Your task to perform on an android device: uninstall "DoorDash - Food Delivery" Image 0: 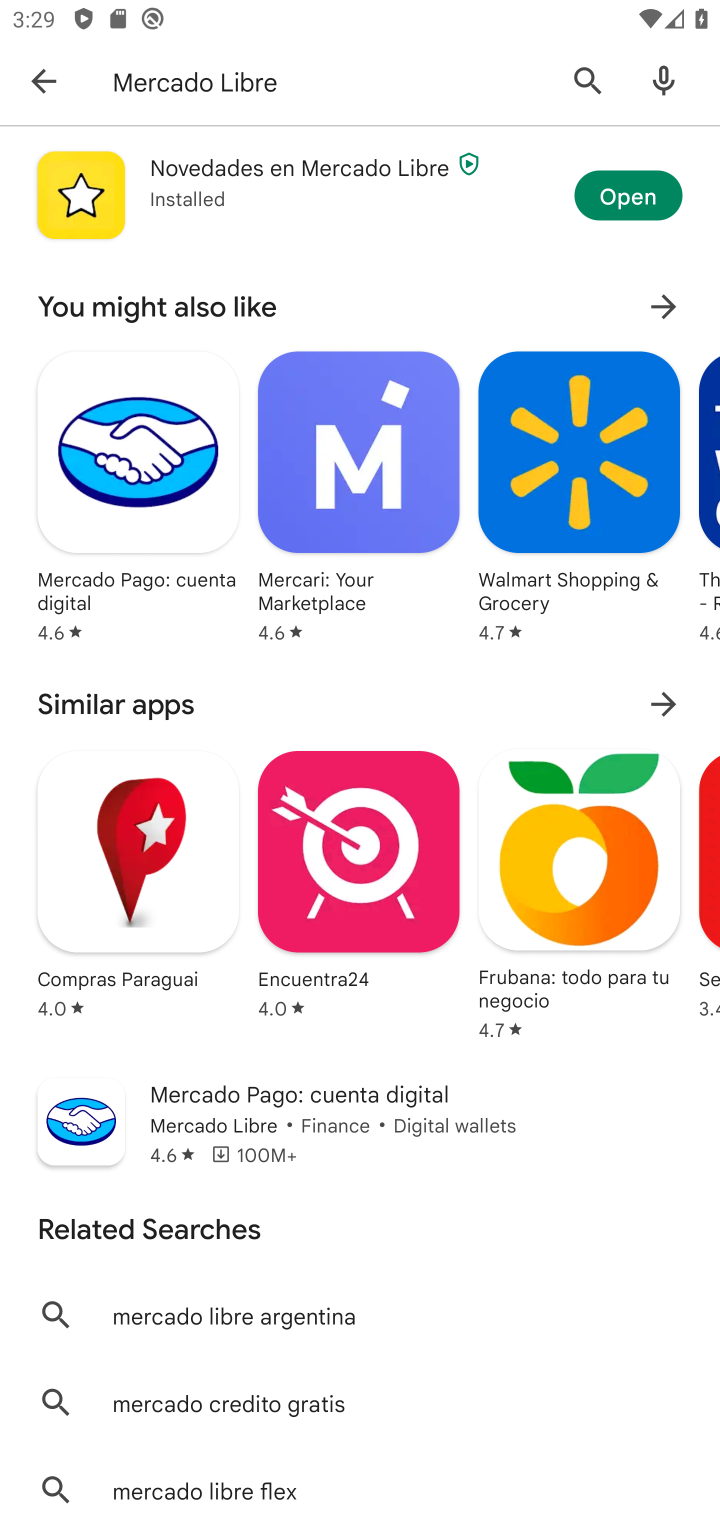
Step 0: press home button
Your task to perform on an android device: uninstall "DoorDash - Food Delivery" Image 1: 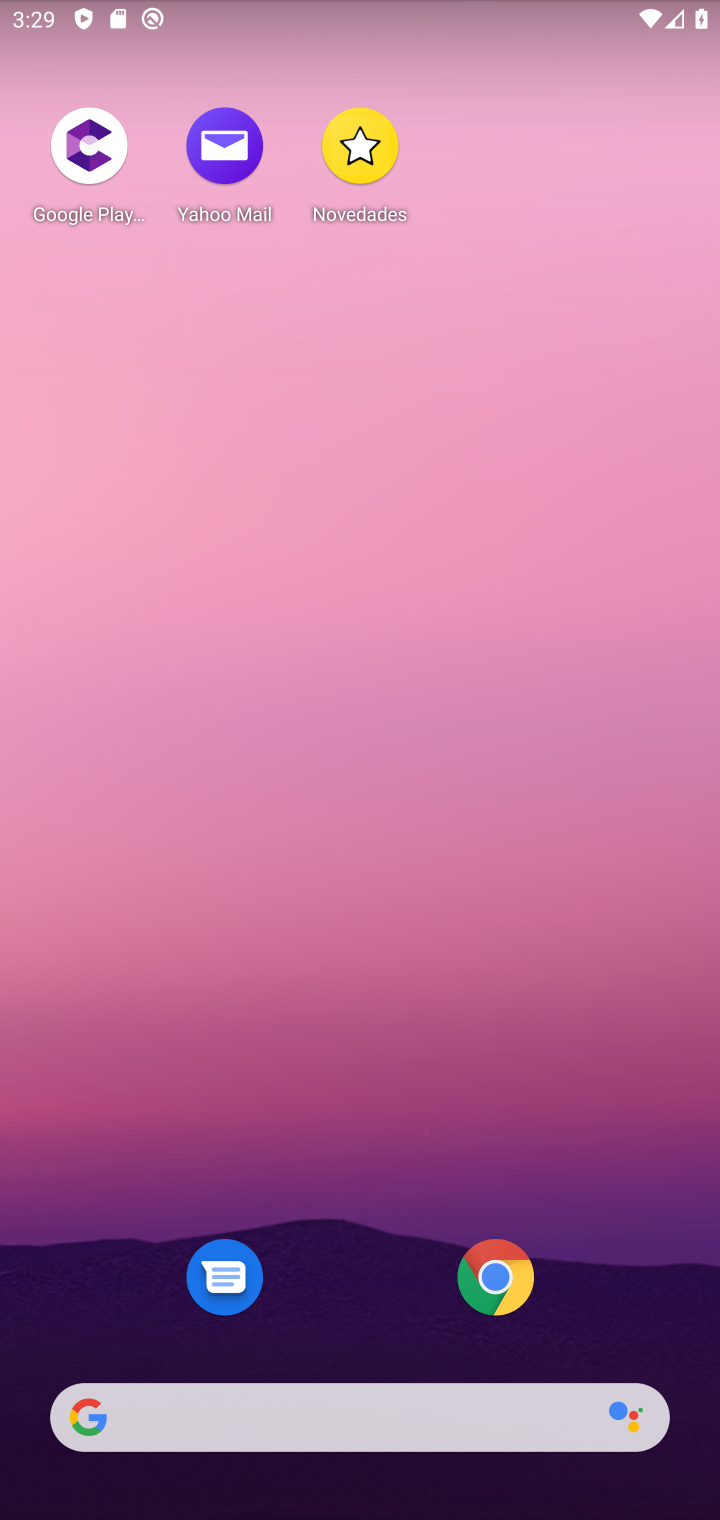
Step 1: drag from (570, 1045) to (605, 143)
Your task to perform on an android device: uninstall "DoorDash - Food Delivery" Image 2: 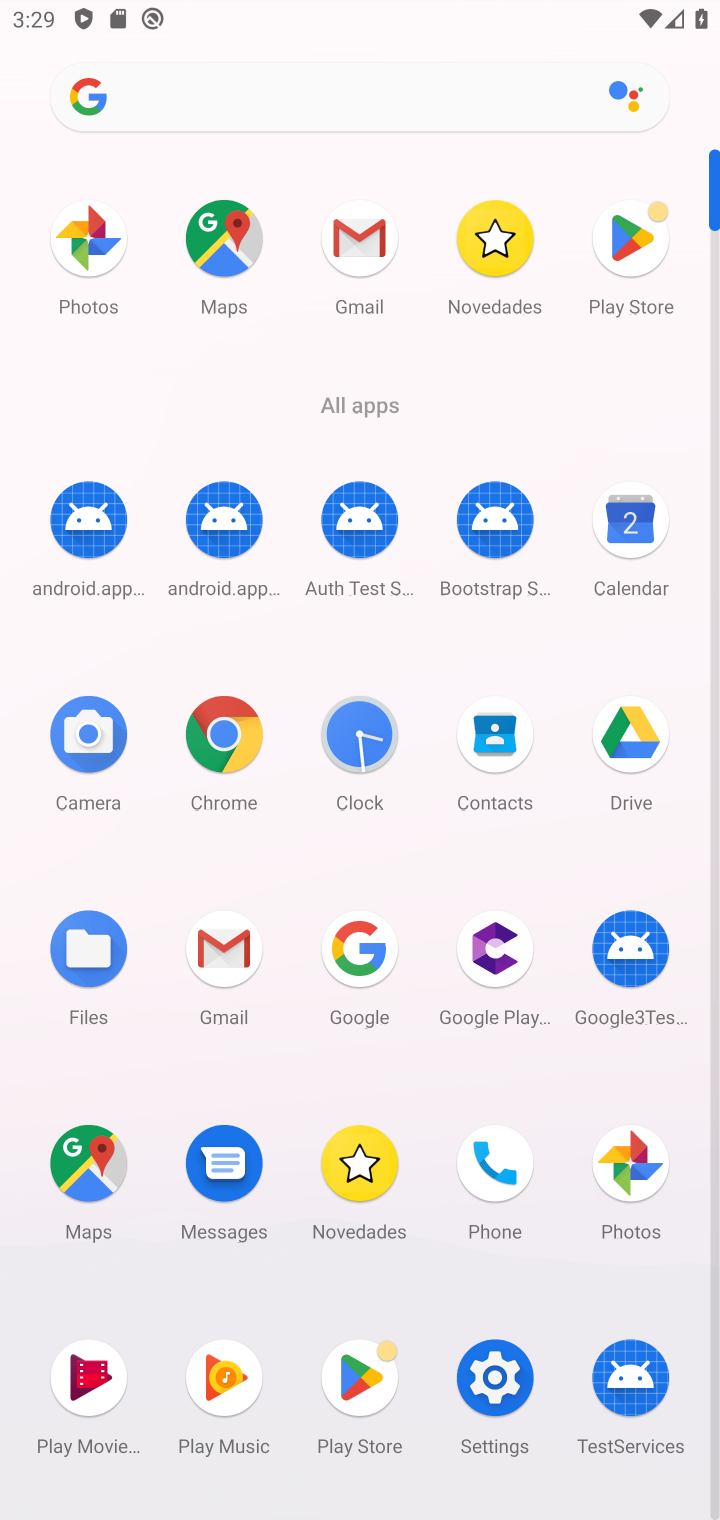
Step 2: drag from (398, 1086) to (449, 370)
Your task to perform on an android device: uninstall "DoorDash - Food Delivery" Image 3: 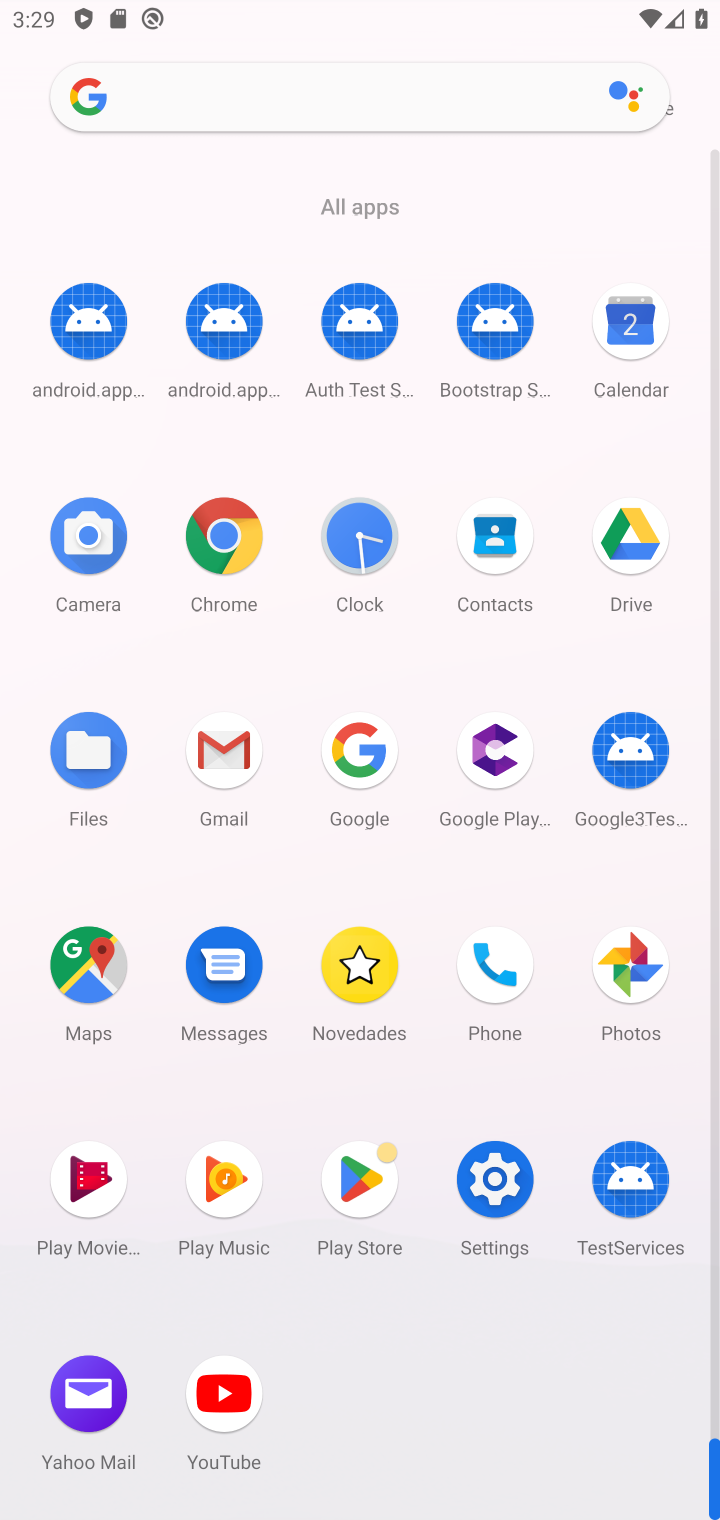
Step 3: click (463, 1394)
Your task to perform on an android device: uninstall "DoorDash - Food Delivery" Image 4: 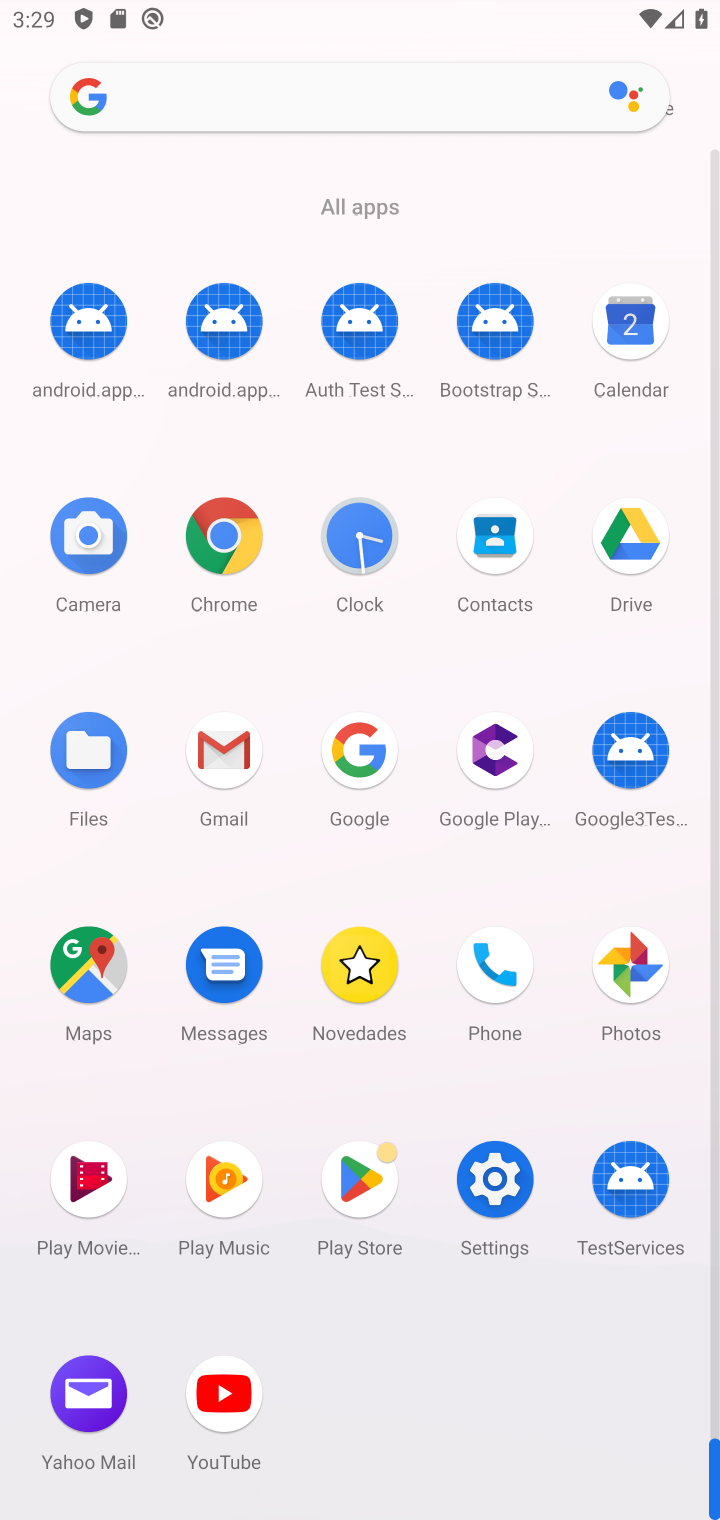
Step 4: click (344, 1173)
Your task to perform on an android device: uninstall "DoorDash - Food Delivery" Image 5: 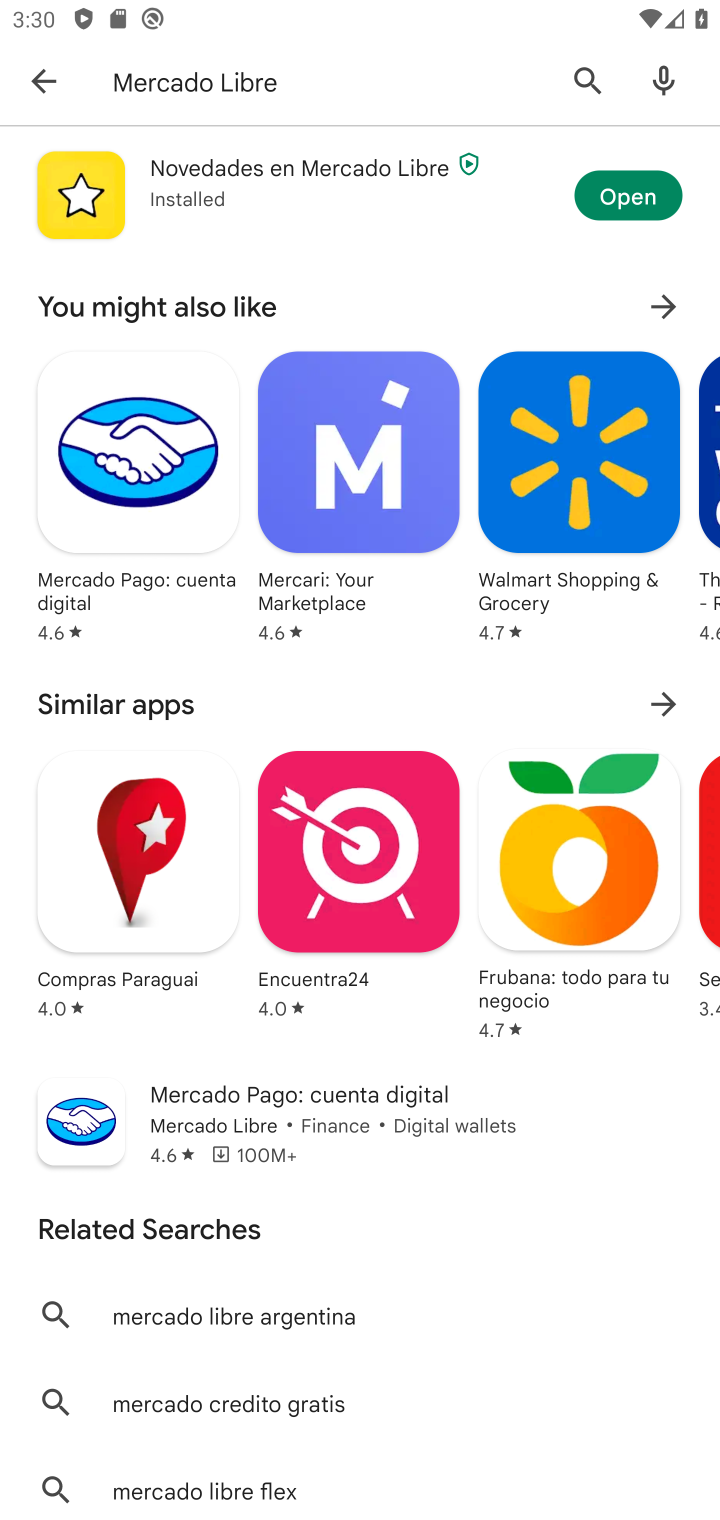
Step 5: click (354, 88)
Your task to perform on an android device: uninstall "DoorDash - Food Delivery" Image 6: 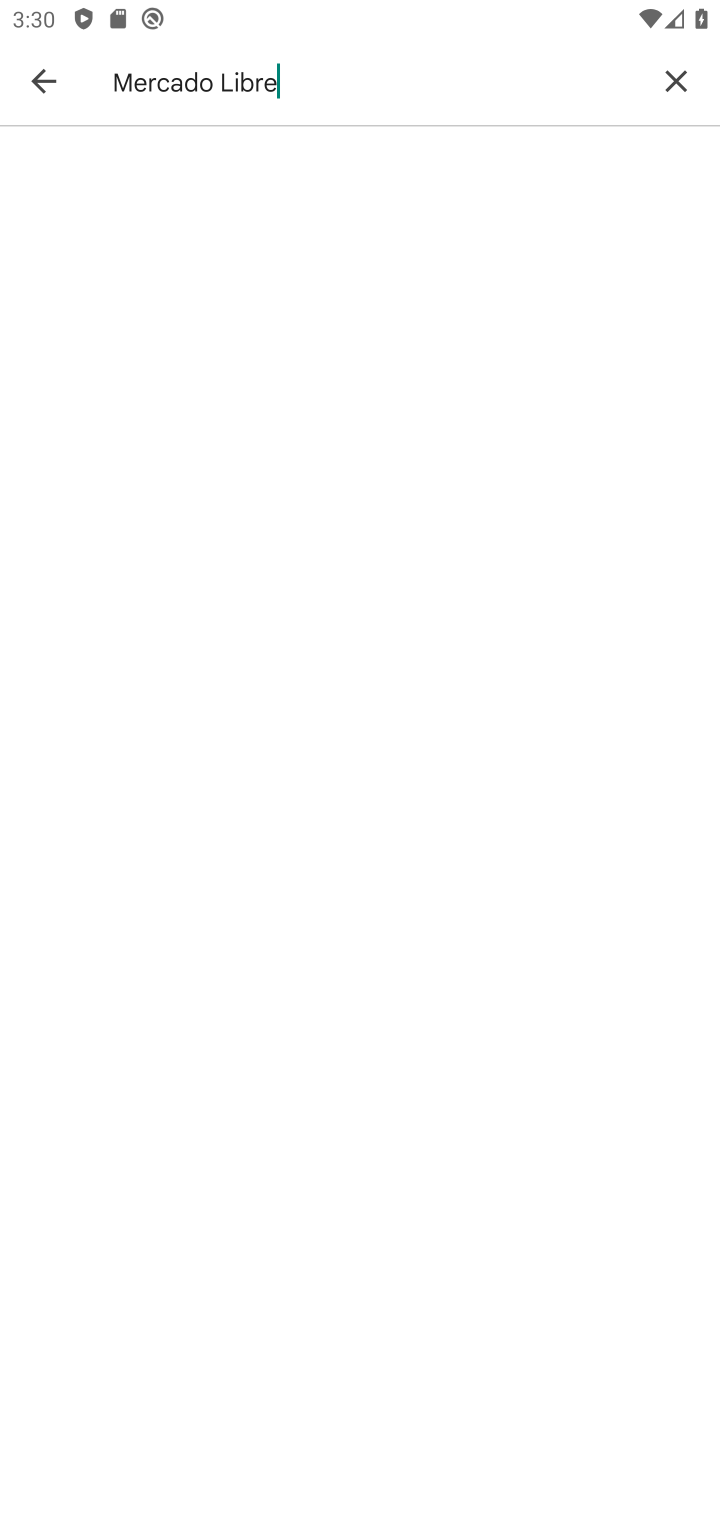
Step 6: click (686, 83)
Your task to perform on an android device: uninstall "DoorDash - Food Delivery" Image 7: 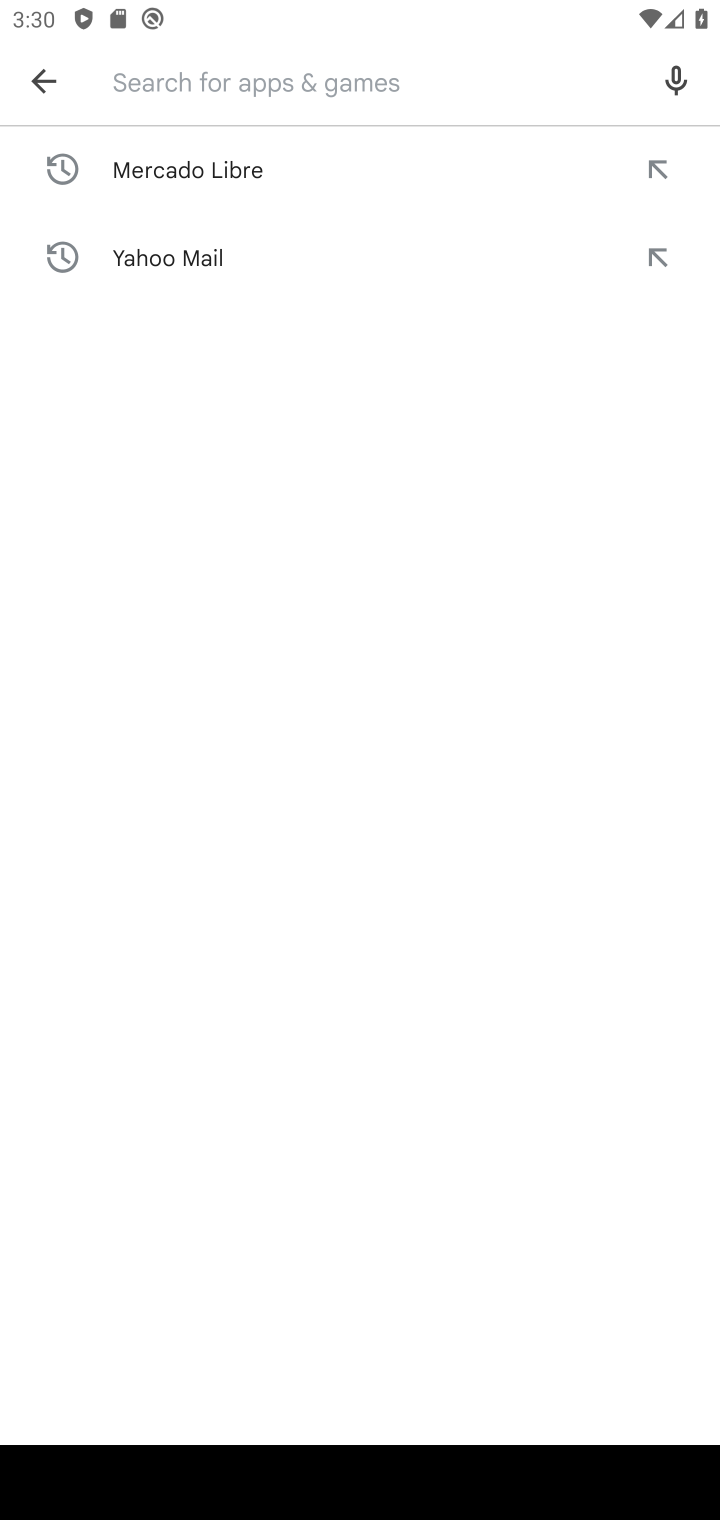
Step 7: type "DoorDash - Food Delivery"
Your task to perform on an android device: uninstall "DoorDash - Food Delivery" Image 8: 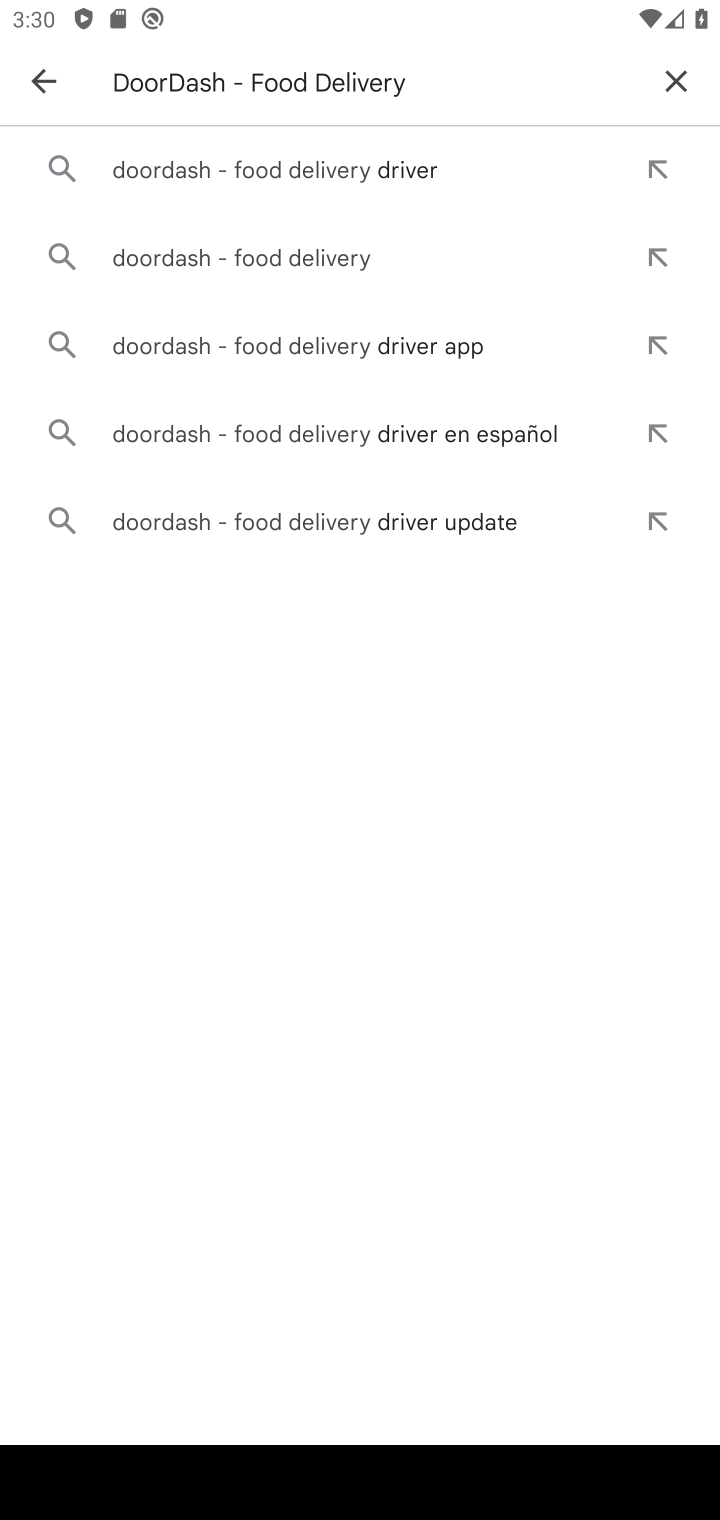
Step 8: press enter
Your task to perform on an android device: uninstall "DoorDash - Food Delivery" Image 9: 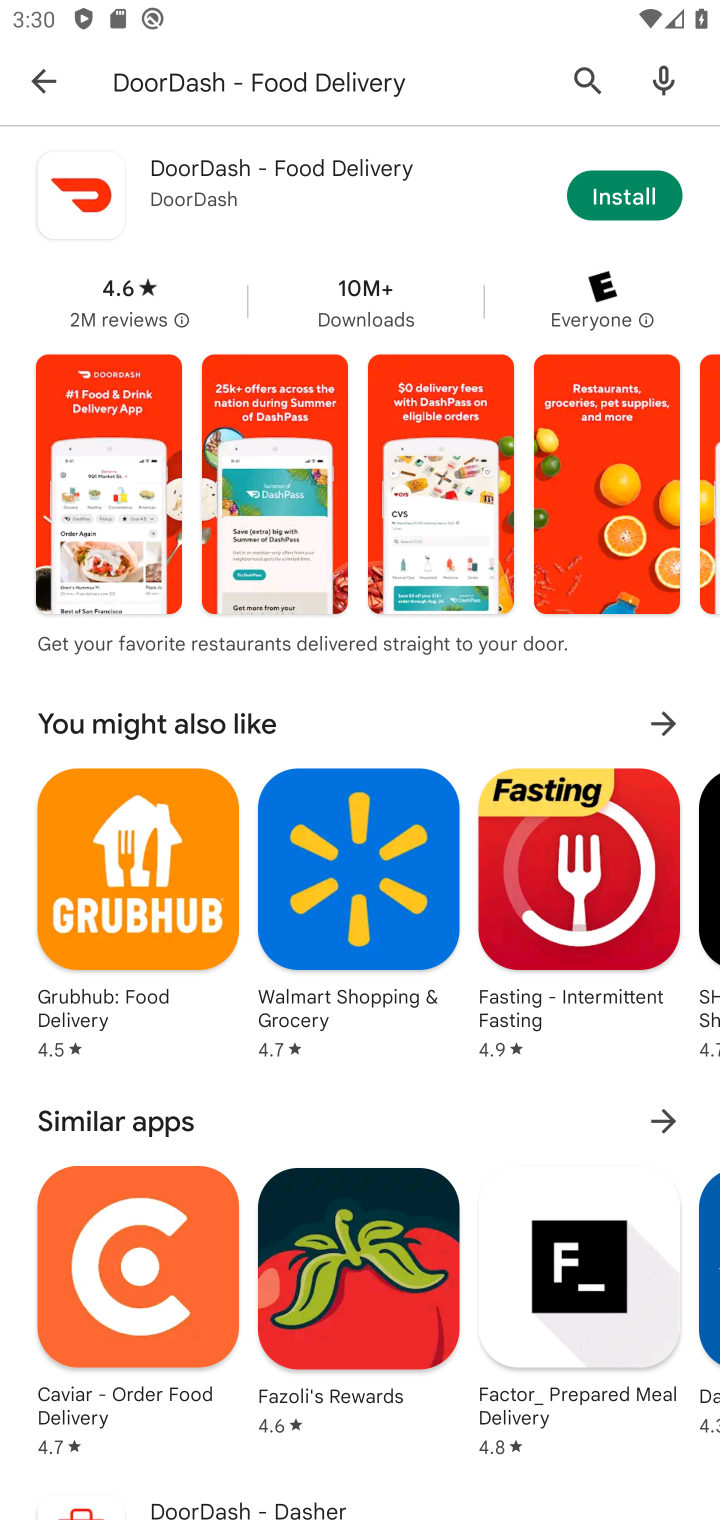
Step 9: click (409, 218)
Your task to perform on an android device: uninstall "DoorDash - Food Delivery" Image 10: 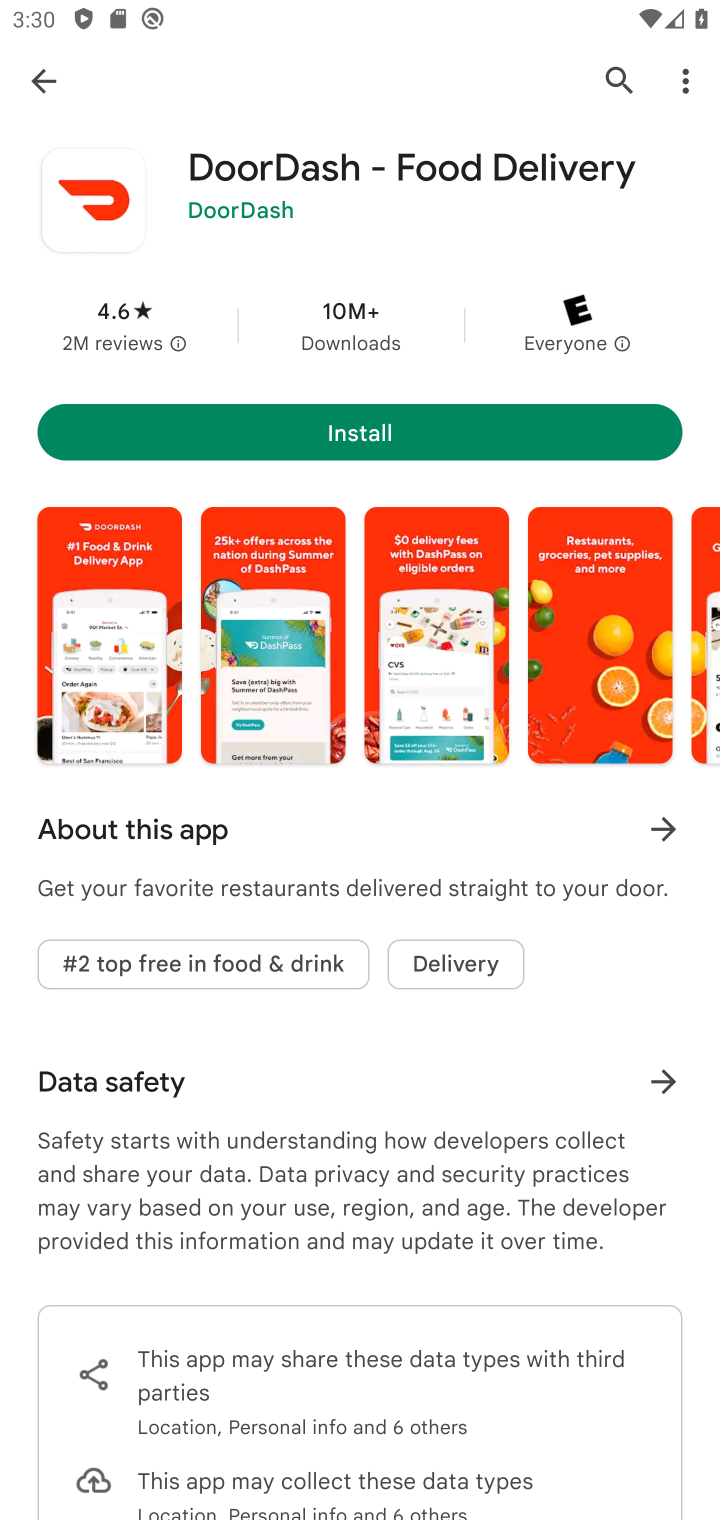
Step 10: task complete